Your task to perform on an android device: turn on sleep mode Image 0: 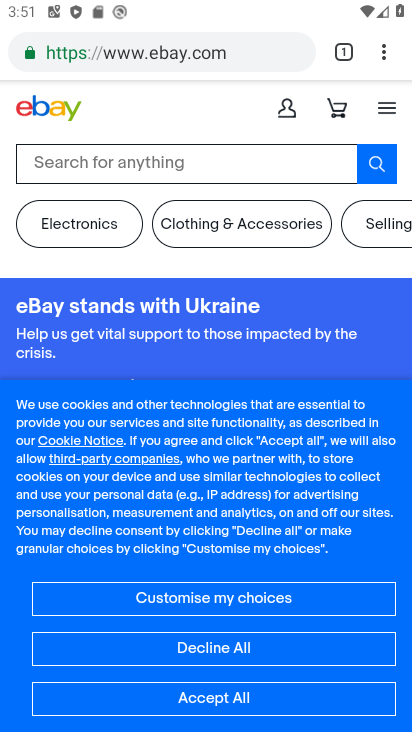
Step 0: press home button
Your task to perform on an android device: turn on sleep mode Image 1: 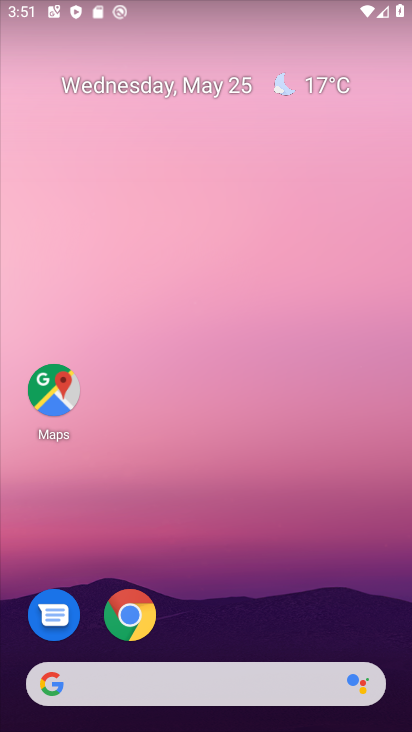
Step 1: drag from (308, 602) to (343, 15)
Your task to perform on an android device: turn on sleep mode Image 2: 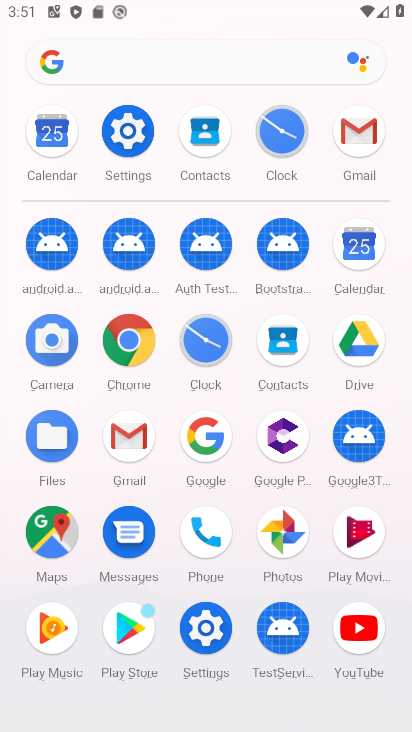
Step 2: click (209, 632)
Your task to perform on an android device: turn on sleep mode Image 3: 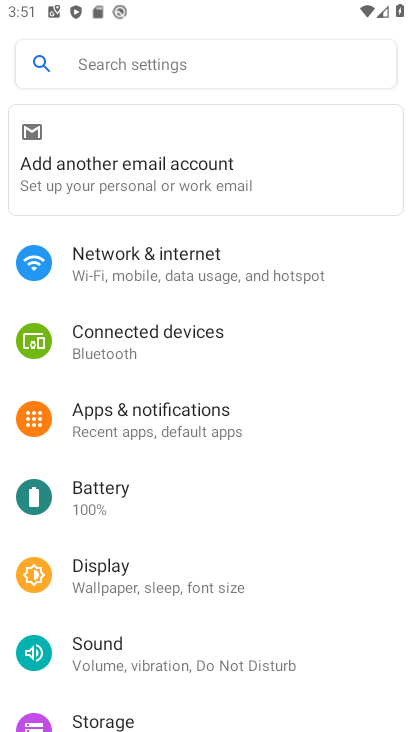
Step 3: click (121, 577)
Your task to perform on an android device: turn on sleep mode Image 4: 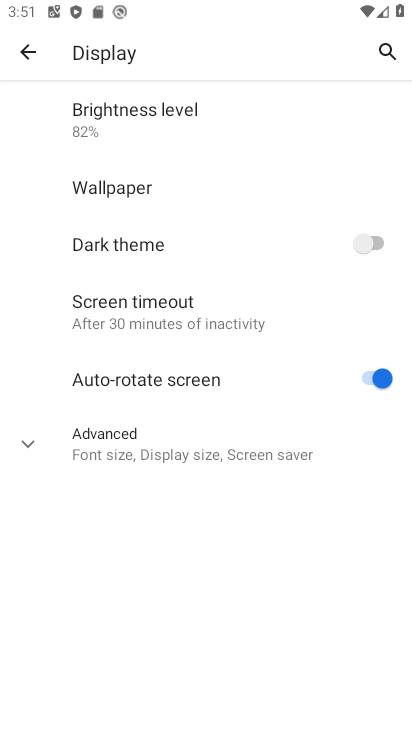
Step 4: task complete